Your task to perform on an android device: When is my next meeting? Image 0: 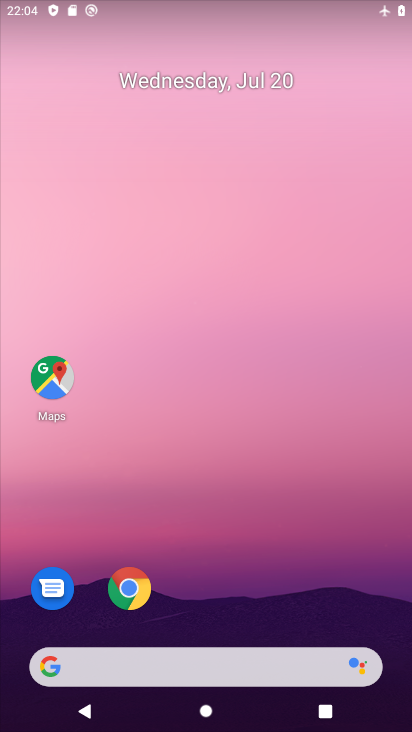
Step 0: drag from (362, 618) to (337, 93)
Your task to perform on an android device: When is my next meeting? Image 1: 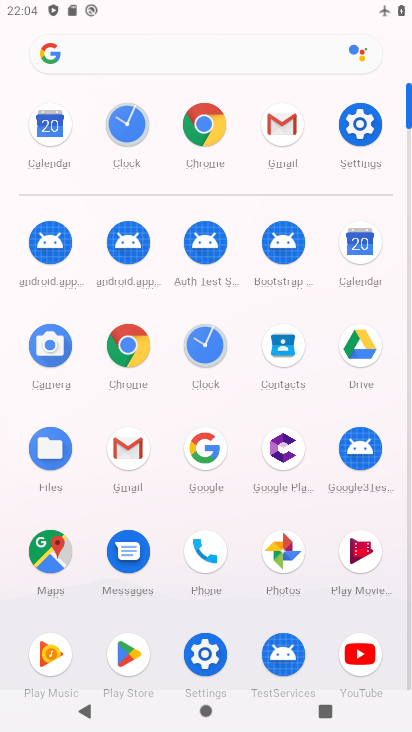
Step 1: click (356, 242)
Your task to perform on an android device: When is my next meeting? Image 2: 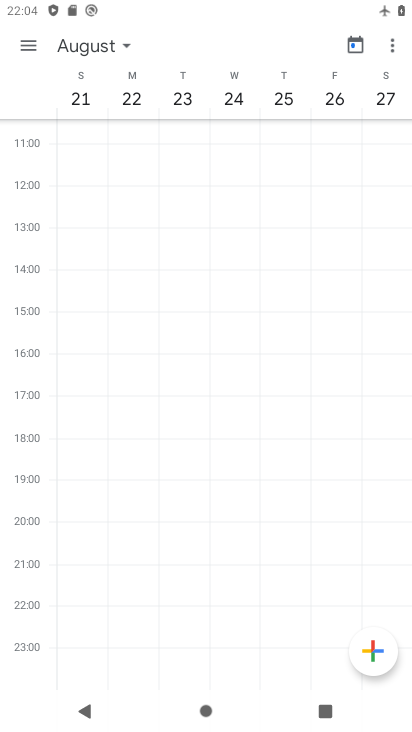
Step 2: click (28, 42)
Your task to perform on an android device: When is my next meeting? Image 3: 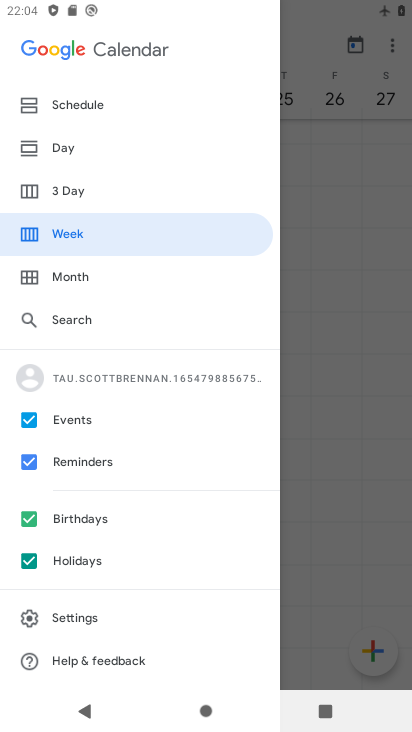
Step 3: click (80, 112)
Your task to perform on an android device: When is my next meeting? Image 4: 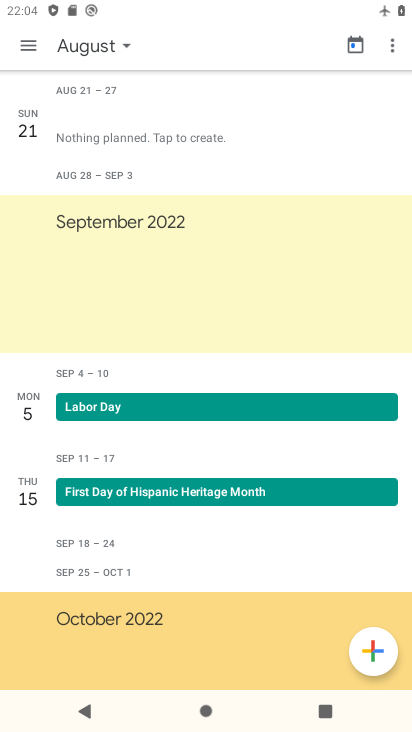
Step 4: task complete